Your task to perform on an android device: turn off airplane mode Image 0: 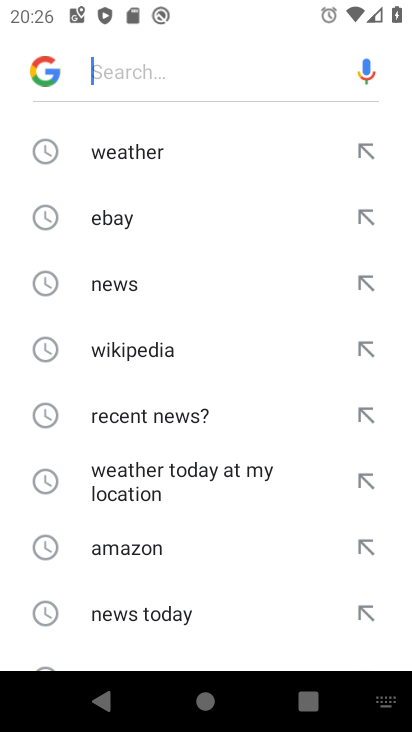
Step 0: press home button
Your task to perform on an android device: turn off airplane mode Image 1: 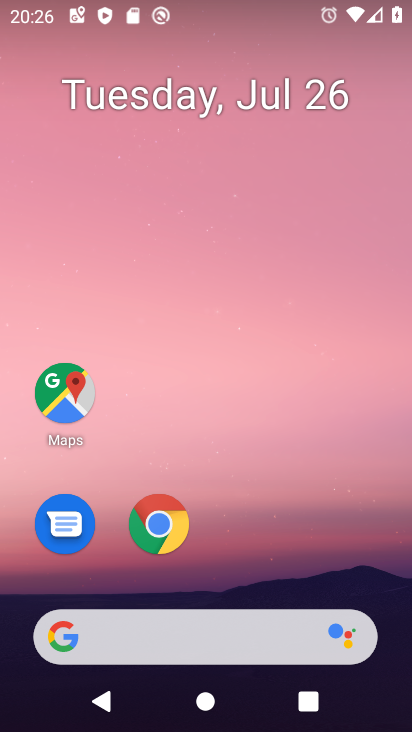
Step 1: drag from (262, 519) to (244, 61)
Your task to perform on an android device: turn off airplane mode Image 2: 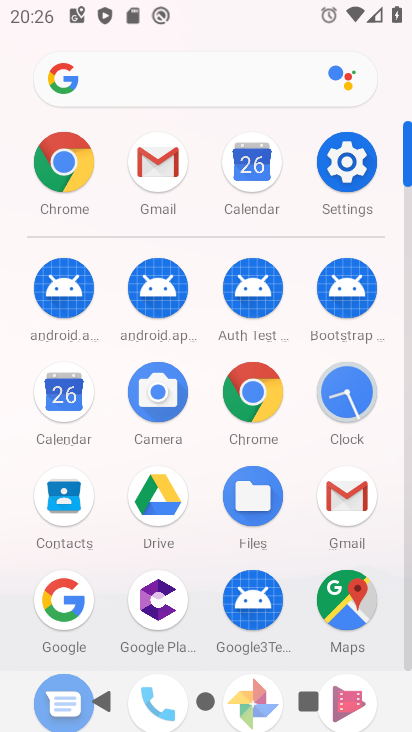
Step 2: click (348, 164)
Your task to perform on an android device: turn off airplane mode Image 3: 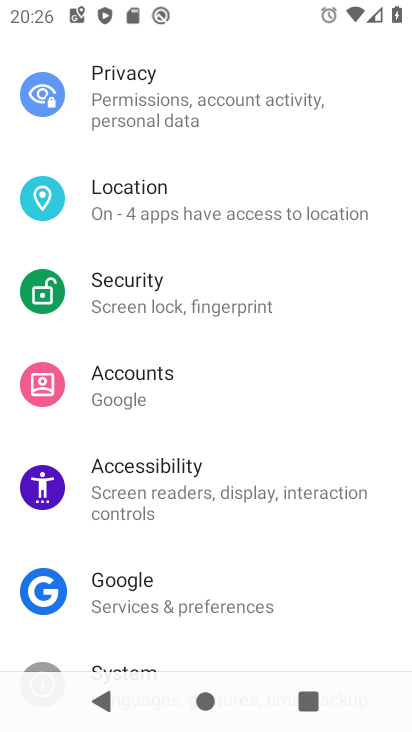
Step 3: drag from (248, 157) to (274, 636)
Your task to perform on an android device: turn off airplane mode Image 4: 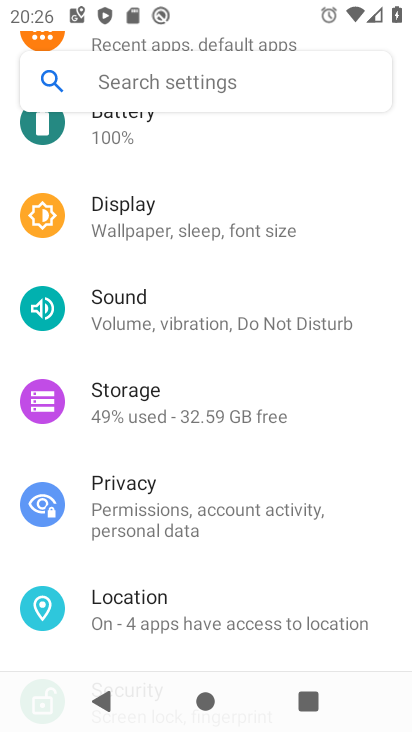
Step 4: drag from (235, 180) to (308, 625)
Your task to perform on an android device: turn off airplane mode Image 5: 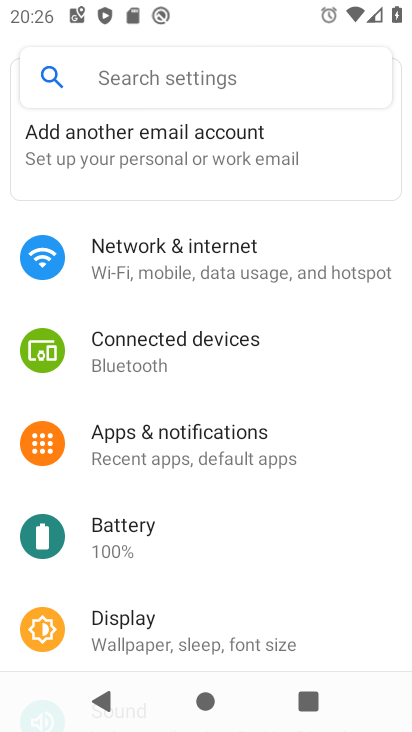
Step 5: click (215, 255)
Your task to perform on an android device: turn off airplane mode Image 6: 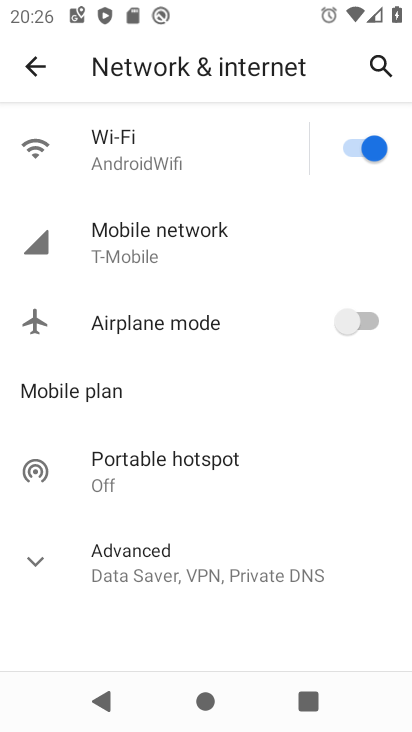
Step 6: task complete